Your task to perform on an android device: delete the emails in spam in the gmail app Image 0: 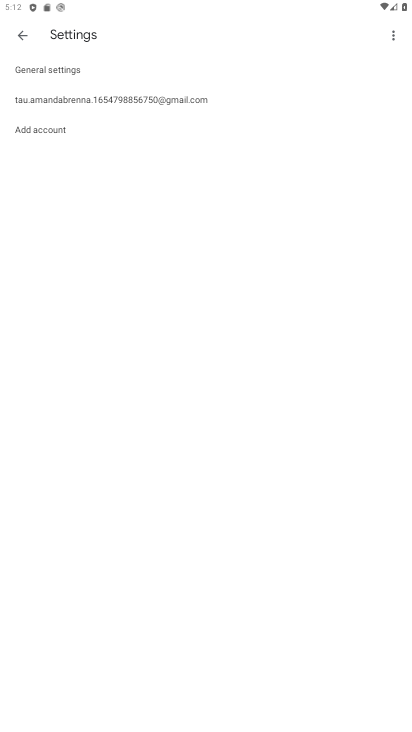
Step 0: press home button
Your task to perform on an android device: delete the emails in spam in the gmail app Image 1: 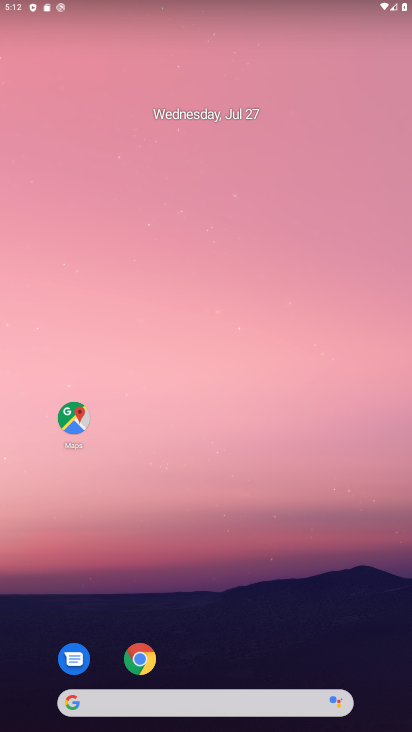
Step 1: drag from (260, 595) to (359, 70)
Your task to perform on an android device: delete the emails in spam in the gmail app Image 2: 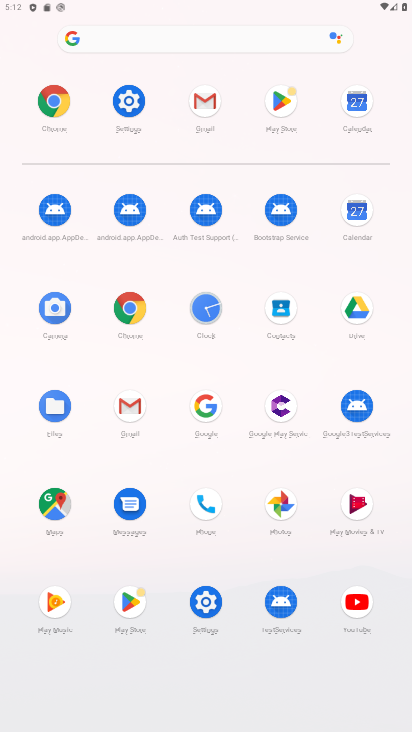
Step 2: click (133, 398)
Your task to perform on an android device: delete the emails in spam in the gmail app Image 3: 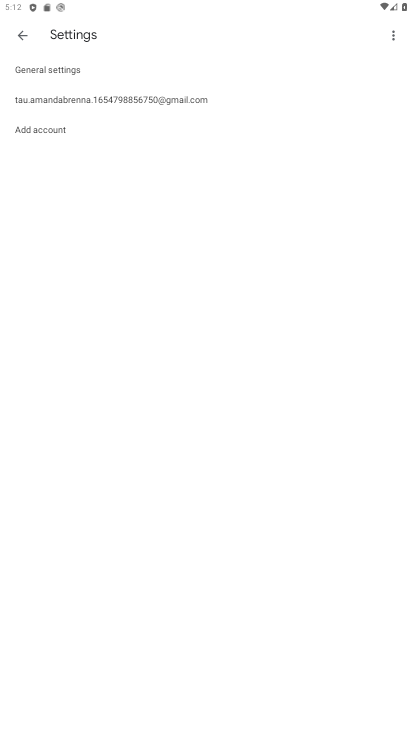
Step 3: click (22, 27)
Your task to perform on an android device: delete the emails in spam in the gmail app Image 4: 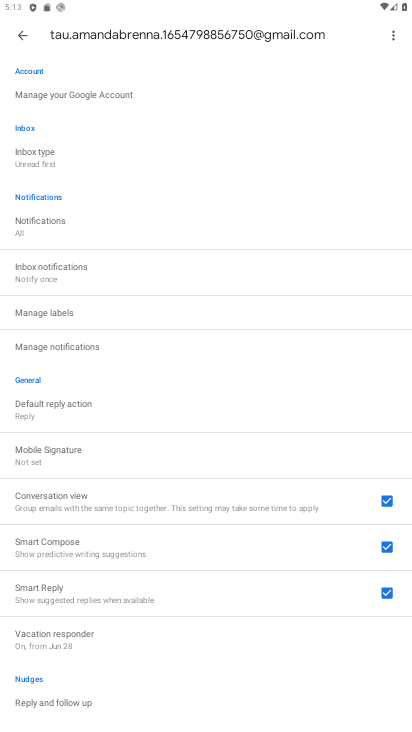
Step 4: click (18, 31)
Your task to perform on an android device: delete the emails in spam in the gmail app Image 5: 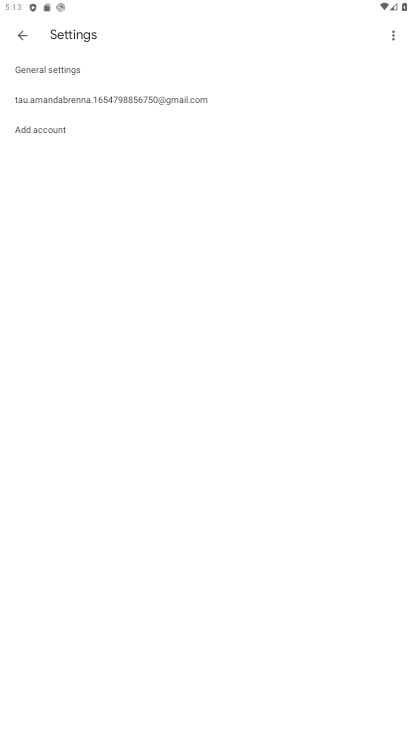
Step 5: click (18, 31)
Your task to perform on an android device: delete the emails in spam in the gmail app Image 6: 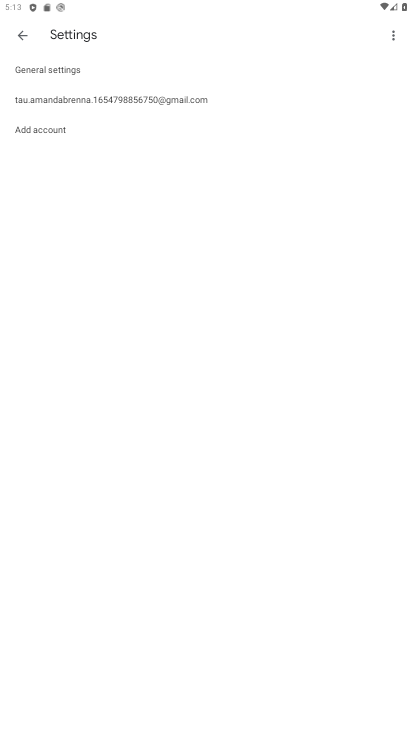
Step 6: click (18, 31)
Your task to perform on an android device: delete the emails in spam in the gmail app Image 7: 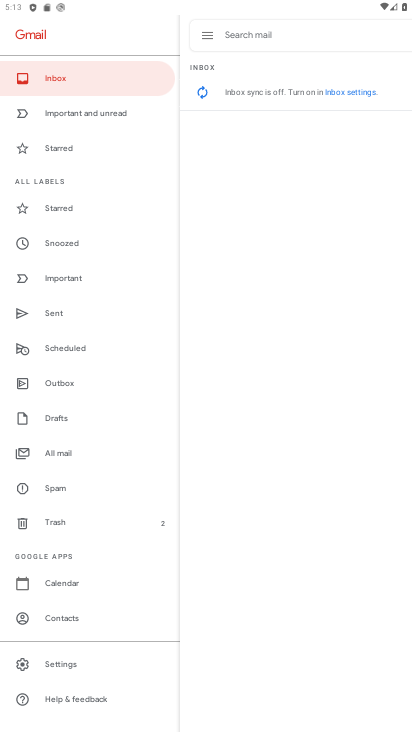
Step 7: click (51, 477)
Your task to perform on an android device: delete the emails in spam in the gmail app Image 8: 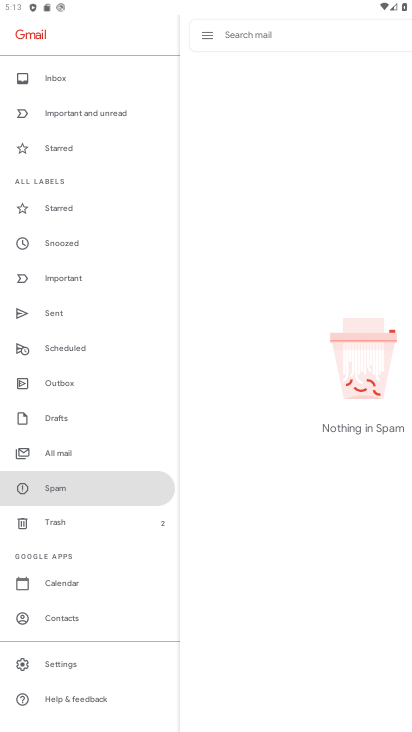
Step 8: task complete